Your task to perform on an android device: open device folders in google photos Image 0: 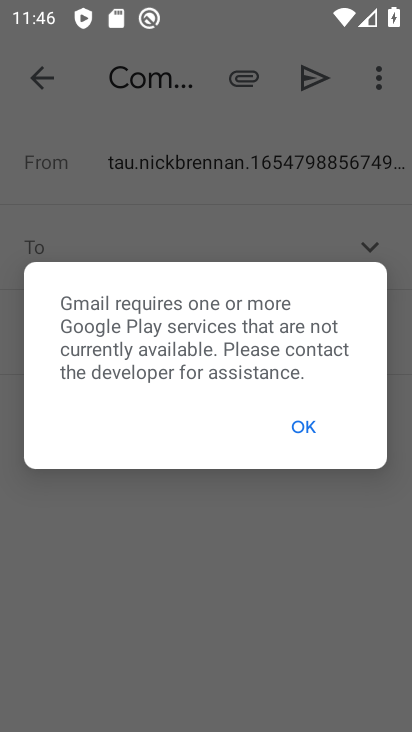
Step 0: press home button
Your task to perform on an android device: open device folders in google photos Image 1: 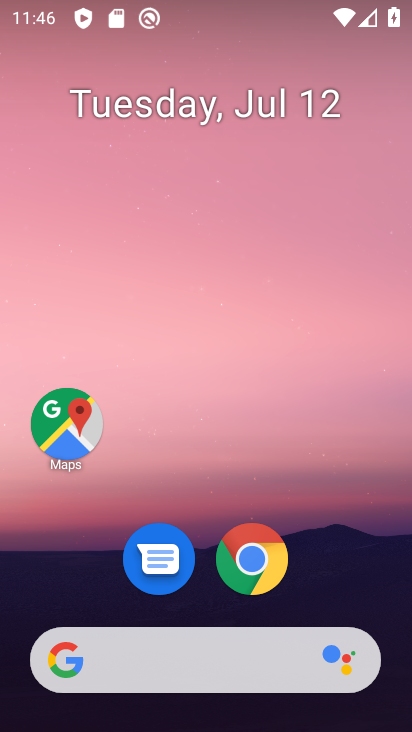
Step 1: drag from (232, 675) to (221, 224)
Your task to perform on an android device: open device folders in google photos Image 2: 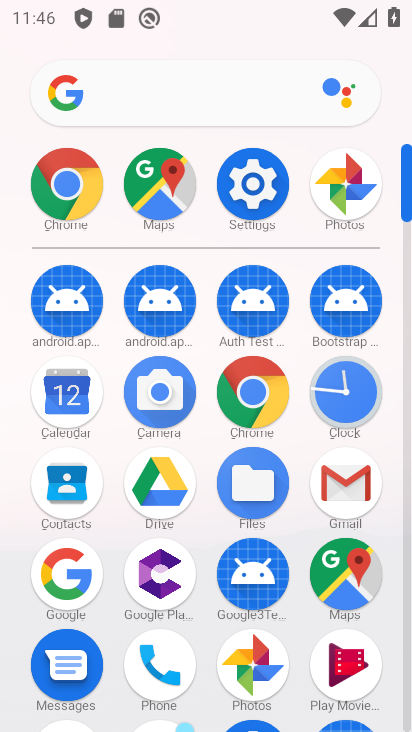
Step 2: drag from (223, 560) to (221, 351)
Your task to perform on an android device: open device folders in google photos Image 3: 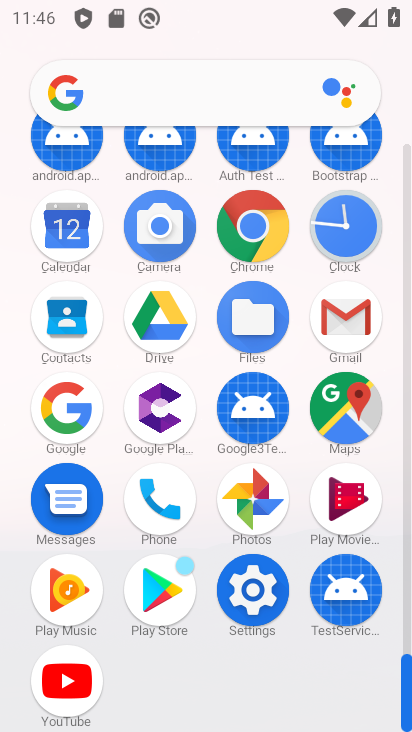
Step 3: click (250, 531)
Your task to perform on an android device: open device folders in google photos Image 4: 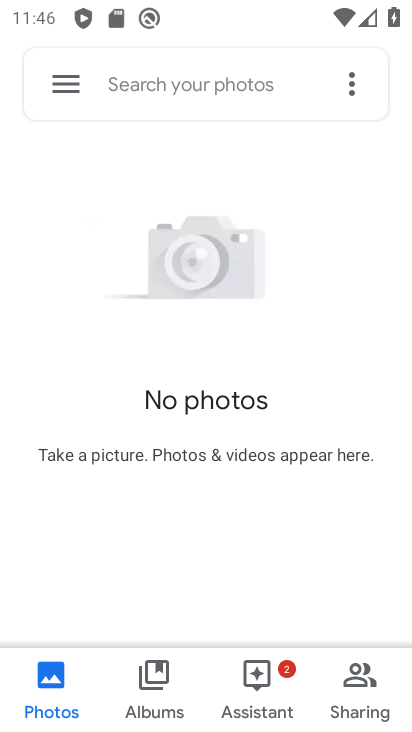
Step 4: click (56, 88)
Your task to perform on an android device: open device folders in google photos Image 5: 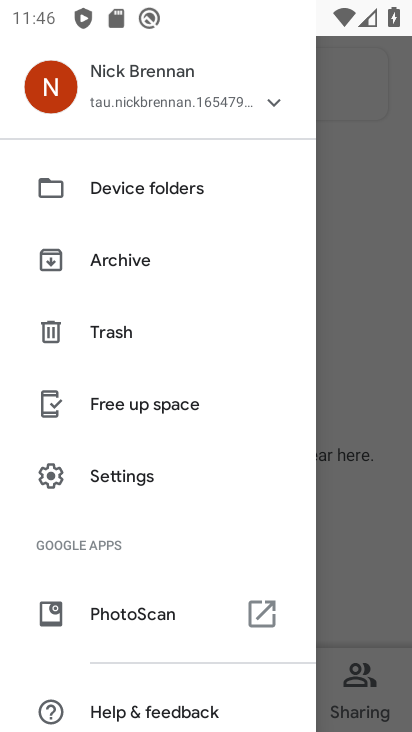
Step 5: click (150, 187)
Your task to perform on an android device: open device folders in google photos Image 6: 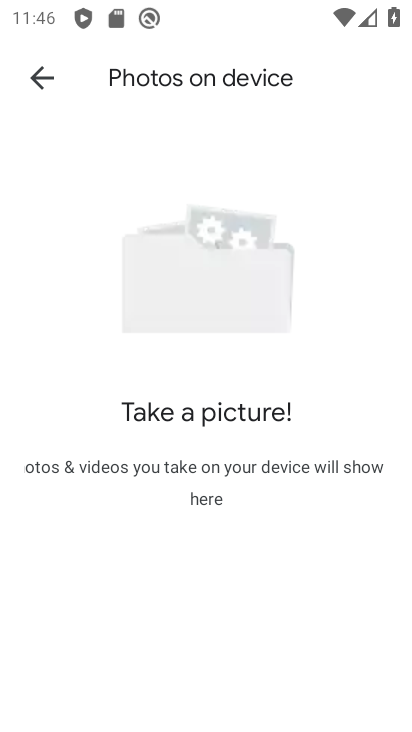
Step 6: task complete